Your task to perform on an android device: delete the emails in spam in the gmail app Image 0: 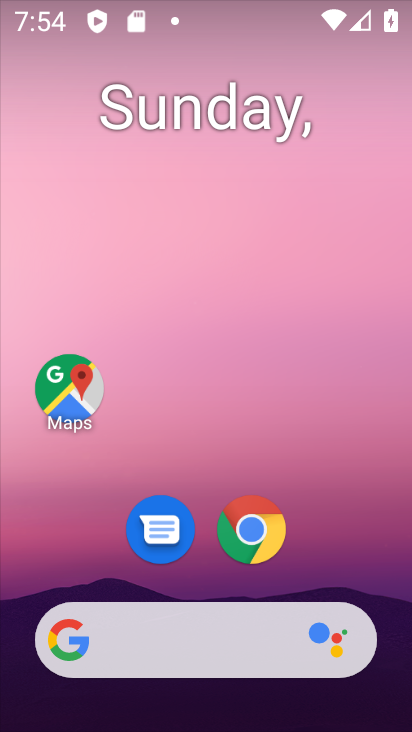
Step 0: drag from (340, 588) to (322, 65)
Your task to perform on an android device: delete the emails in spam in the gmail app Image 1: 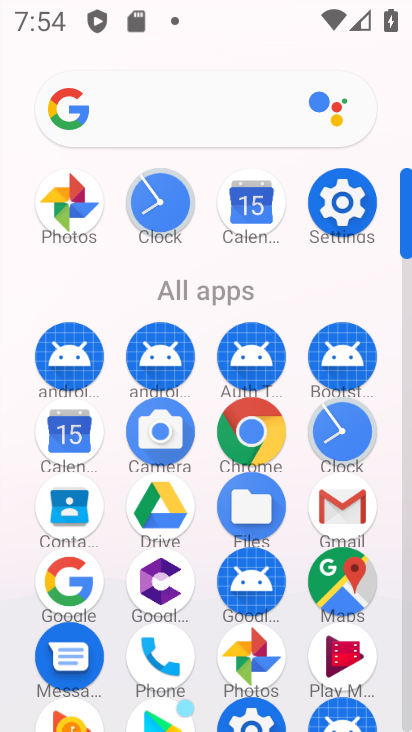
Step 1: click (328, 509)
Your task to perform on an android device: delete the emails in spam in the gmail app Image 2: 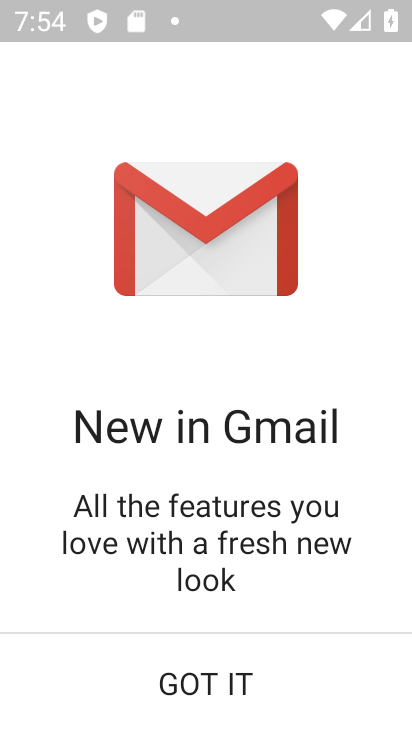
Step 2: click (315, 686)
Your task to perform on an android device: delete the emails in spam in the gmail app Image 3: 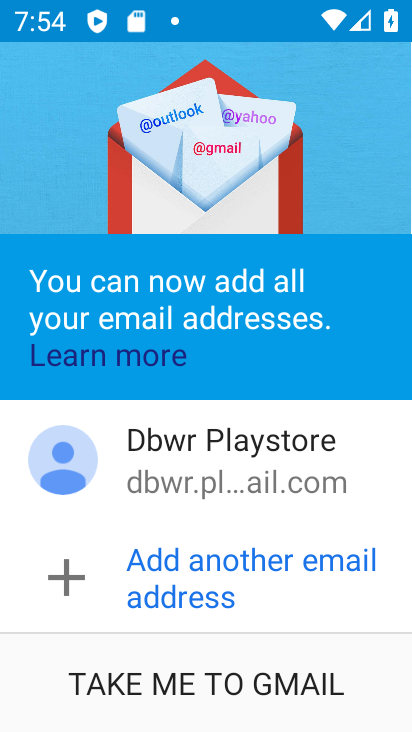
Step 3: click (265, 677)
Your task to perform on an android device: delete the emails in spam in the gmail app Image 4: 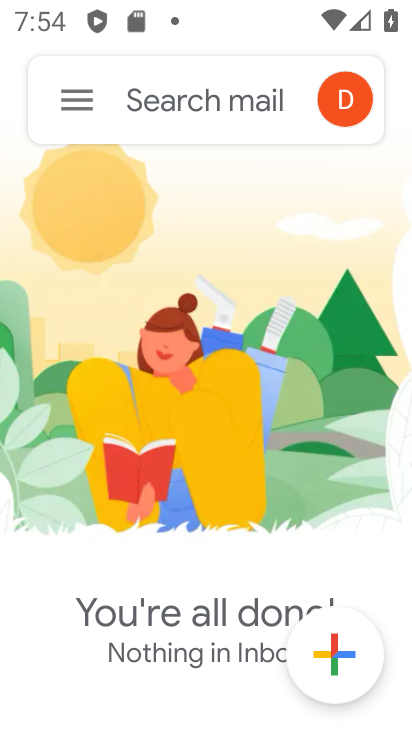
Step 4: click (90, 96)
Your task to perform on an android device: delete the emails in spam in the gmail app Image 5: 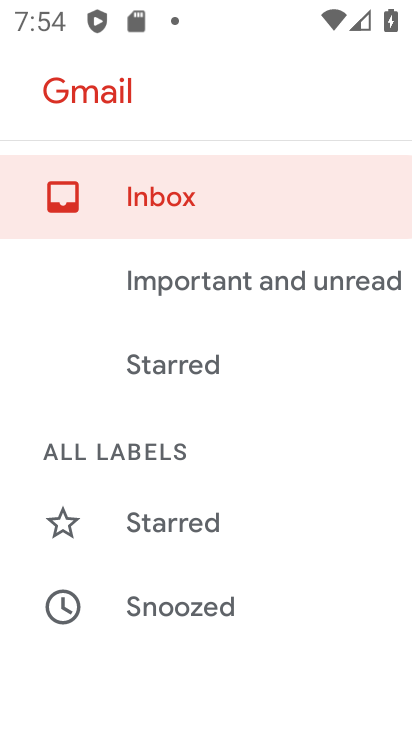
Step 5: drag from (258, 577) to (258, 193)
Your task to perform on an android device: delete the emails in spam in the gmail app Image 6: 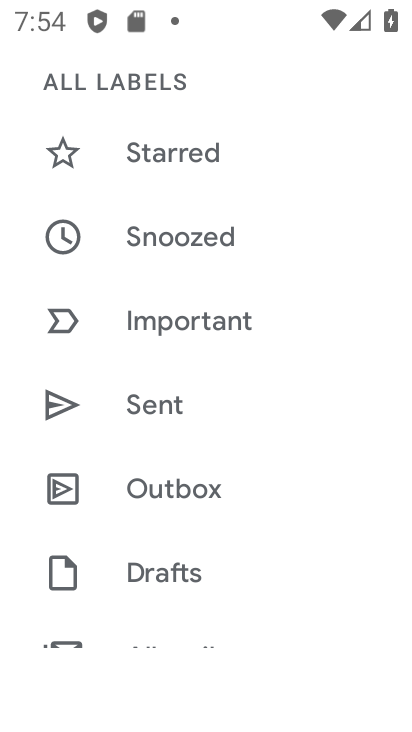
Step 6: drag from (200, 549) to (179, 133)
Your task to perform on an android device: delete the emails in spam in the gmail app Image 7: 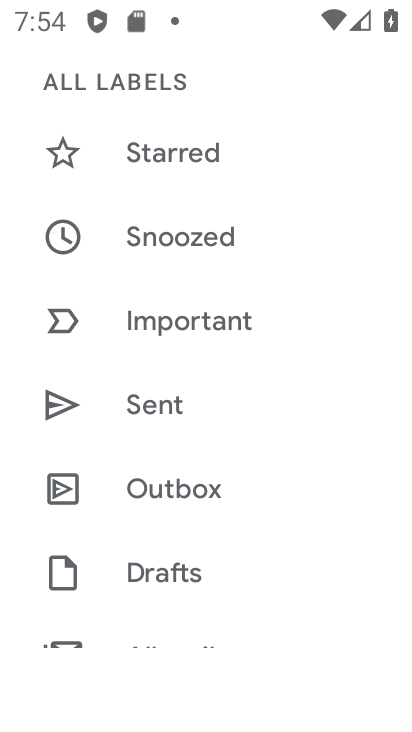
Step 7: drag from (250, 505) to (235, 179)
Your task to perform on an android device: delete the emails in spam in the gmail app Image 8: 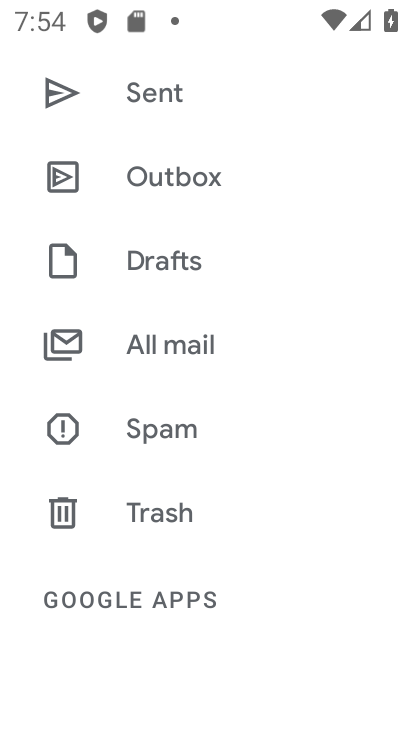
Step 8: click (195, 430)
Your task to perform on an android device: delete the emails in spam in the gmail app Image 9: 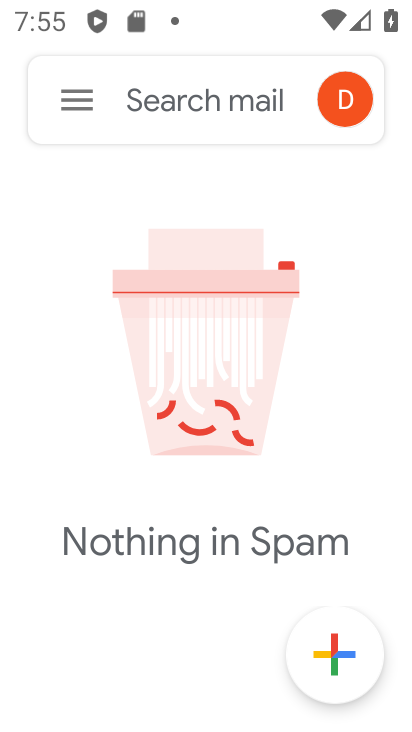
Step 9: task complete